Your task to perform on an android device: What's on my calendar today? Image 0: 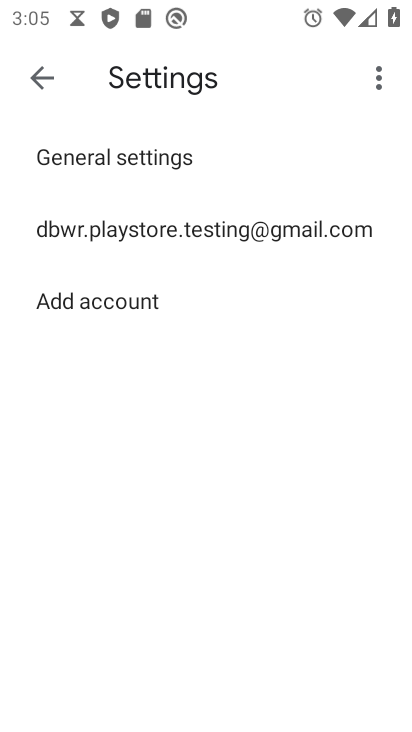
Step 0: press home button
Your task to perform on an android device: What's on my calendar today? Image 1: 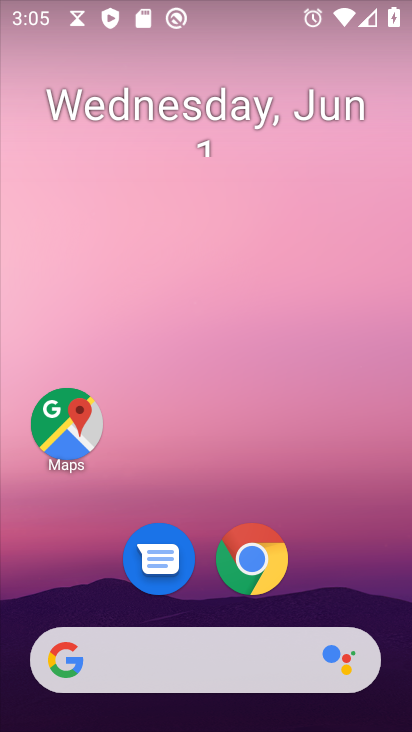
Step 1: drag from (325, 581) to (230, 0)
Your task to perform on an android device: What's on my calendar today? Image 2: 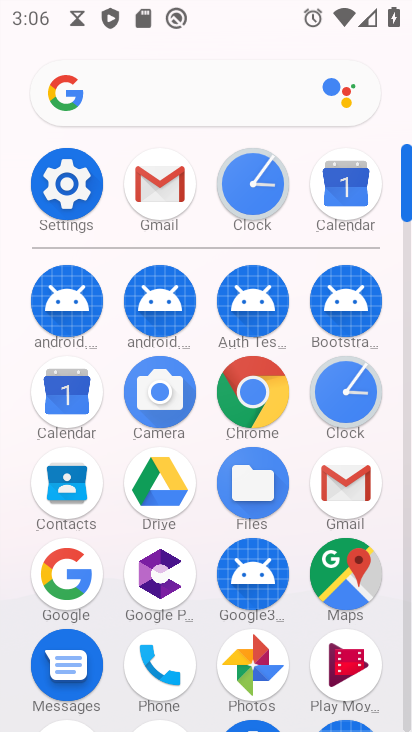
Step 2: click (62, 388)
Your task to perform on an android device: What's on my calendar today? Image 3: 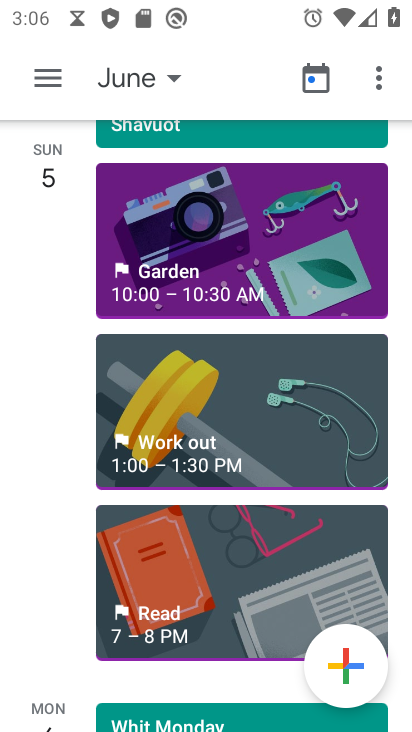
Step 3: click (164, 77)
Your task to perform on an android device: What's on my calendar today? Image 4: 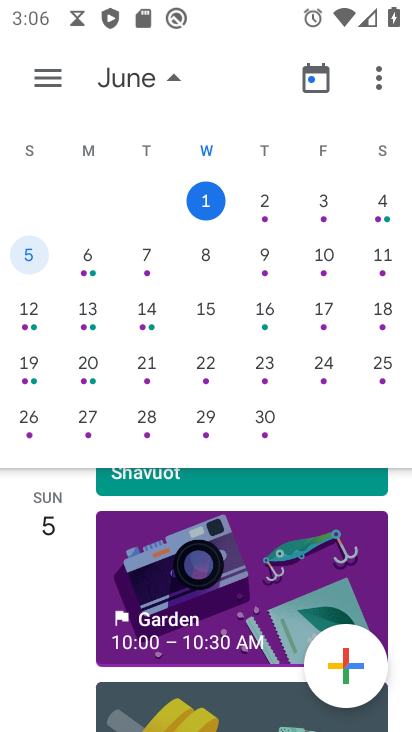
Step 4: click (211, 199)
Your task to perform on an android device: What's on my calendar today? Image 5: 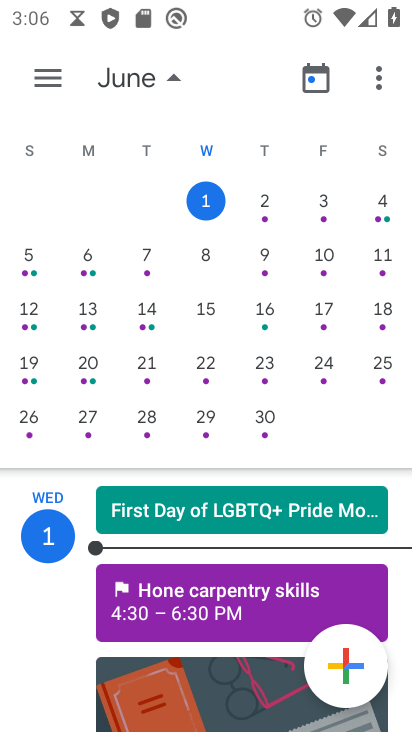
Step 5: task complete